Your task to perform on an android device: turn smart compose on in the gmail app Image 0: 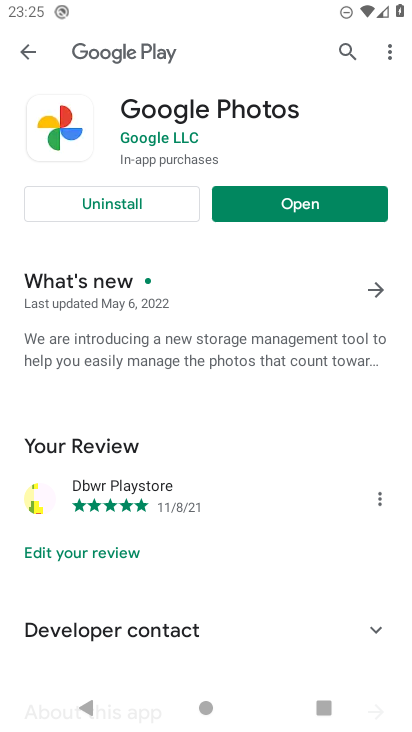
Step 0: press home button
Your task to perform on an android device: turn smart compose on in the gmail app Image 1: 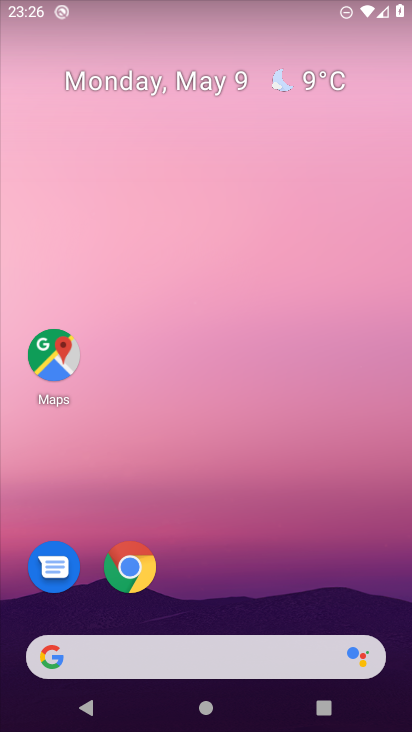
Step 1: drag from (217, 613) to (281, 38)
Your task to perform on an android device: turn smart compose on in the gmail app Image 2: 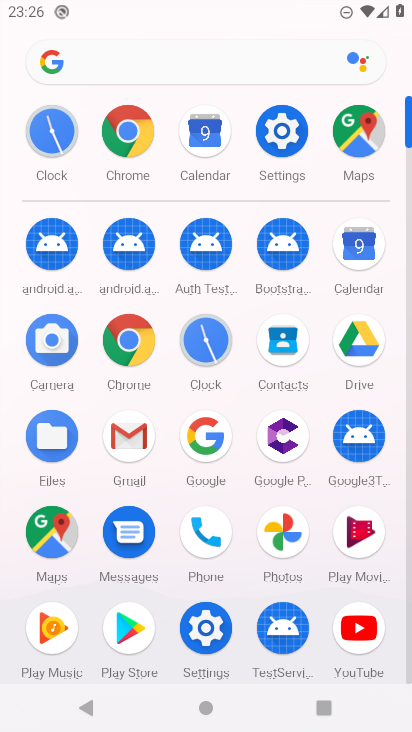
Step 2: click (129, 430)
Your task to perform on an android device: turn smart compose on in the gmail app Image 3: 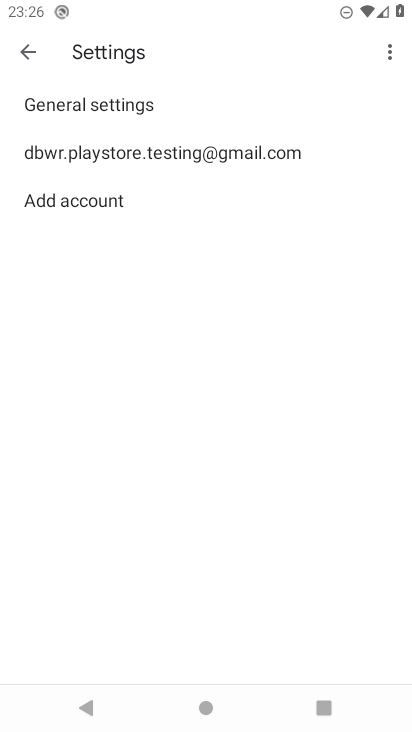
Step 3: click (212, 155)
Your task to perform on an android device: turn smart compose on in the gmail app Image 4: 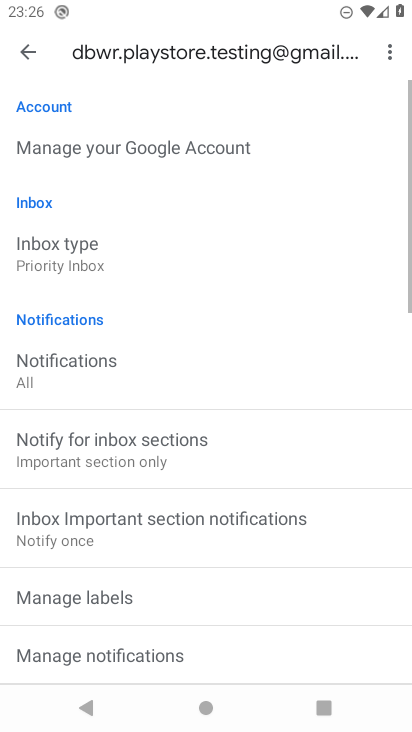
Step 4: task complete